Your task to perform on an android device: show emergency info Image 0: 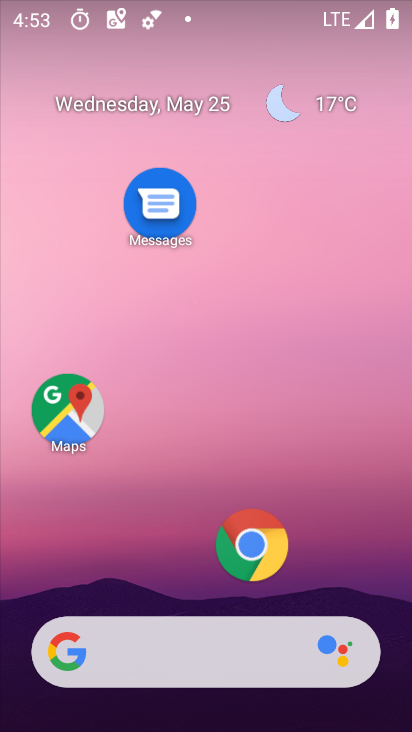
Step 0: drag from (160, 499) to (259, 6)
Your task to perform on an android device: show emergency info Image 1: 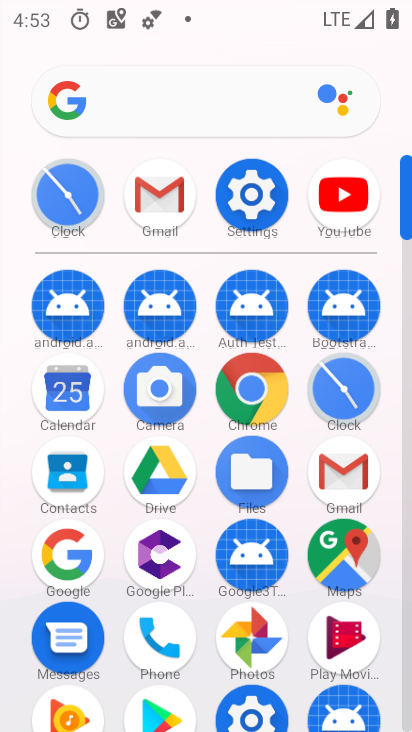
Step 1: click (270, 184)
Your task to perform on an android device: show emergency info Image 2: 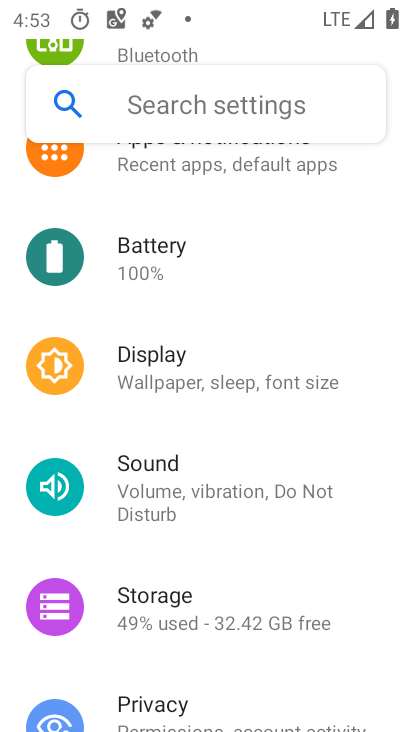
Step 2: drag from (215, 632) to (202, 340)
Your task to perform on an android device: show emergency info Image 3: 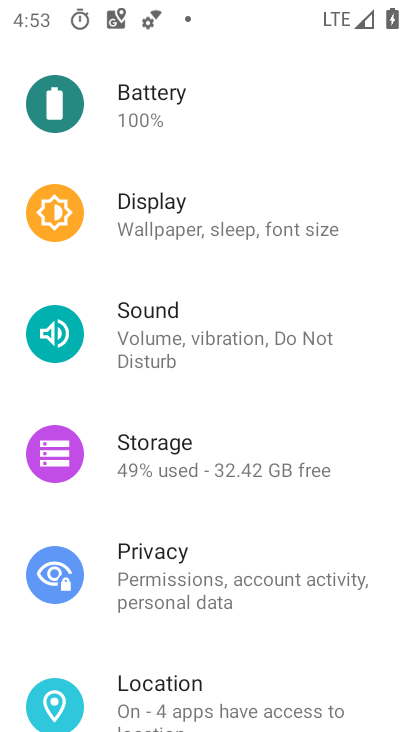
Step 3: drag from (226, 602) to (219, 258)
Your task to perform on an android device: show emergency info Image 4: 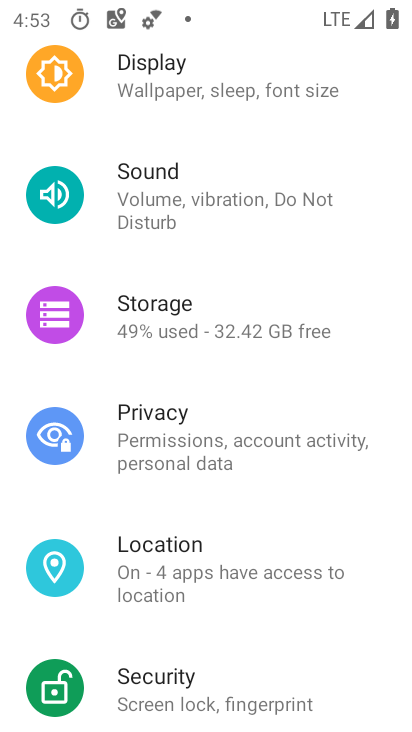
Step 4: drag from (186, 689) to (188, 381)
Your task to perform on an android device: show emergency info Image 5: 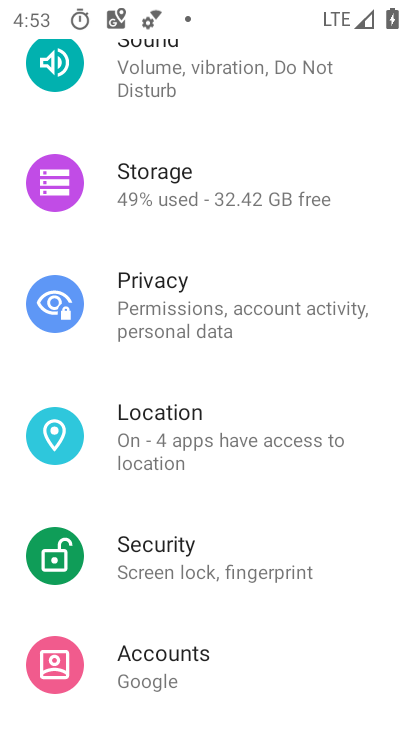
Step 5: drag from (182, 579) to (203, 190)
Your task to perform on an android device: show emergency info Image 6: 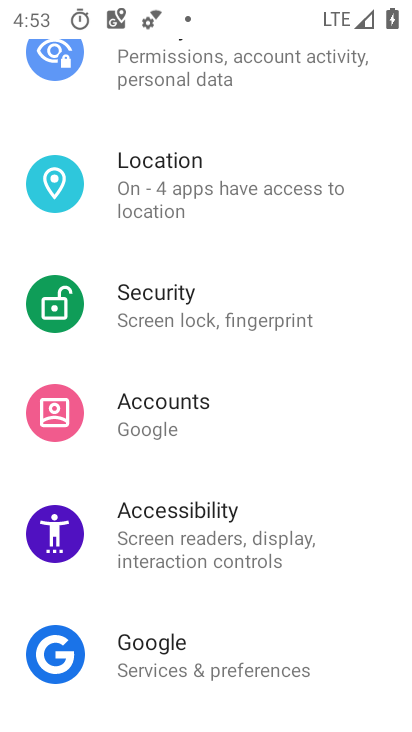
Step 6: drag from (263, 615) to (259, 358)
Your task to perform on an android device: show emergency info Image 7: 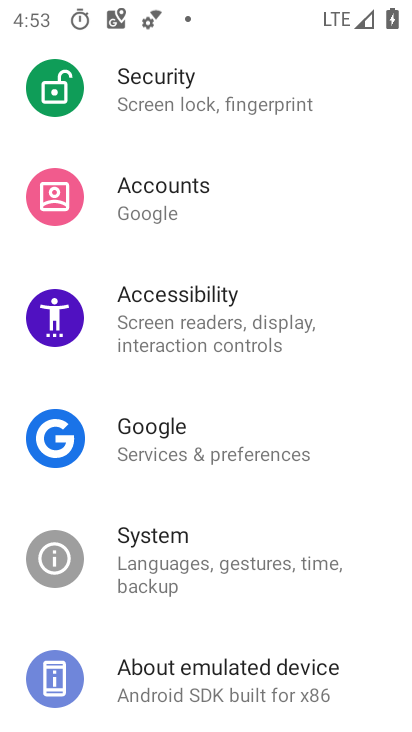
Step 7: click (197, 677)
Your task to perform on an android device: show emergency info Image 8: 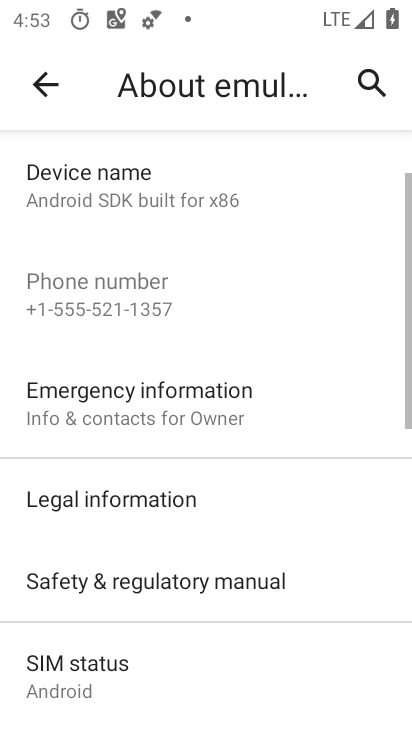
Step 8: click (153, 410)
Your task to perform on an android device: show emergency info Image 9: 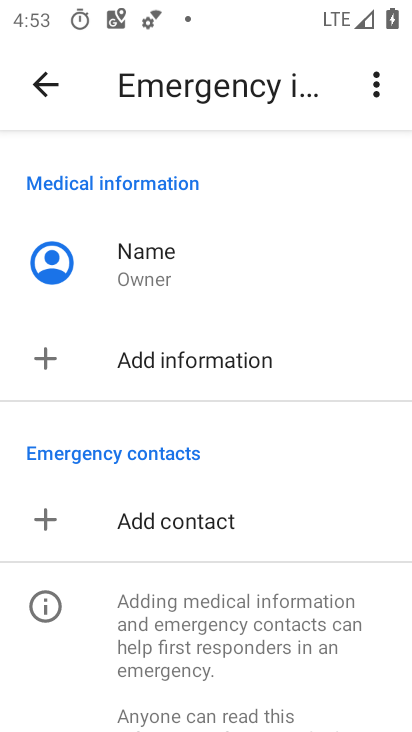
Step 9: task complete